Your task to perform on an android device: turn on location history Image 0: 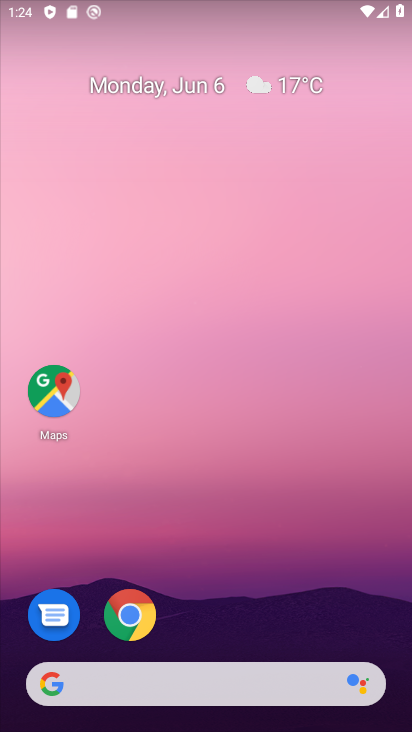
Step 0: drag from (228, 692) to (155, 0)
Your task to perform on an android device: turn on location history Image 1: 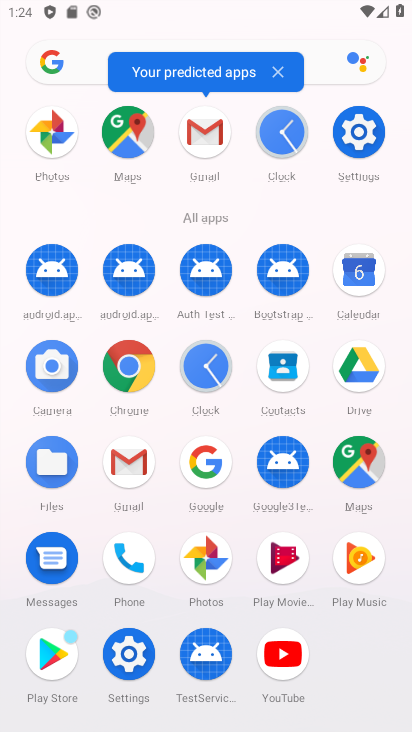
Step 1: click (370, 111)
Your task to perform on an android device: turn on location history Image 2: 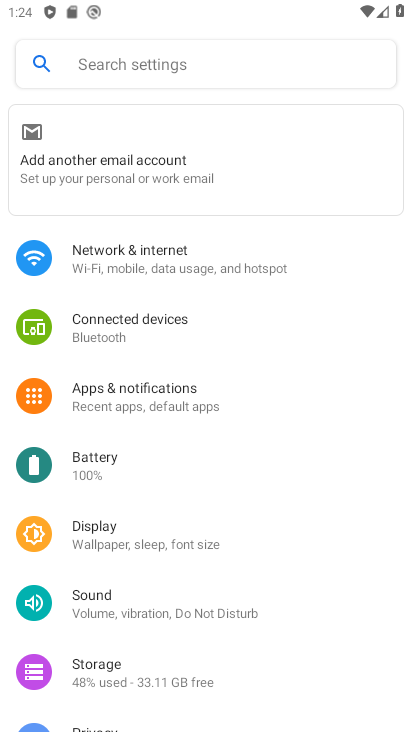
Step 2: drag from (237, 686) to (233, 407)
Your task to perform on an android device: turn on location history Image 3: 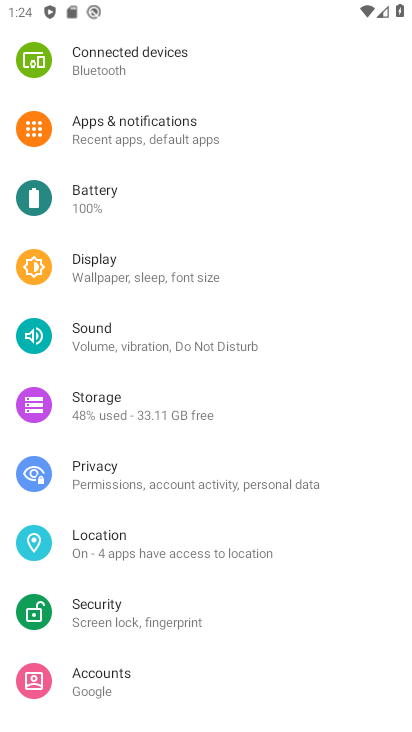
Step 3: click (167, 542)
Your task to perform on an android device: turn on location history Image 4: 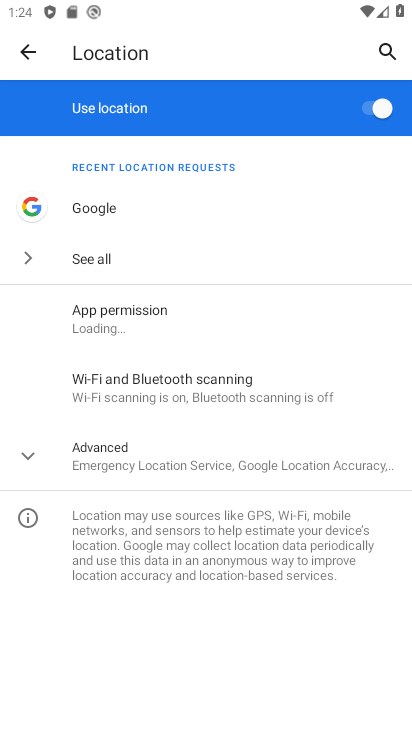
Step 4: click (177, 457)
Your task to perform on an android device: turn on location history Image 5: 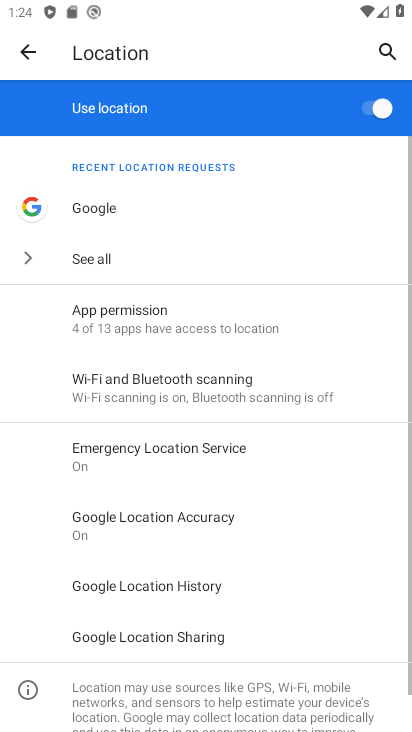
Step 5: drag from (180, 608) to (206, 424)
Your task to perform on an android device: turn on location history Image 6: 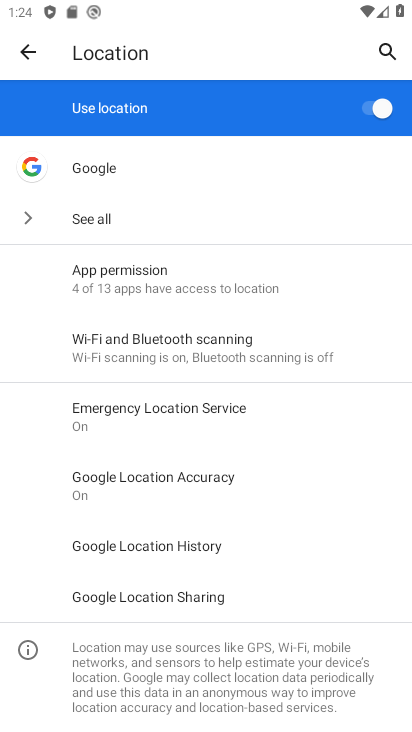
Step 6: click (123, 548)
Your task to perform on an android device: turn on location history Image 7: 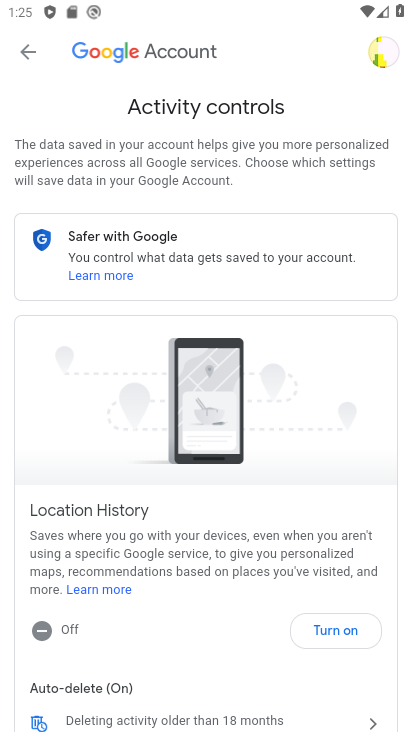
Step 7: click (333, 636)
Your task to perform on an android device: turn on location history Image 8: 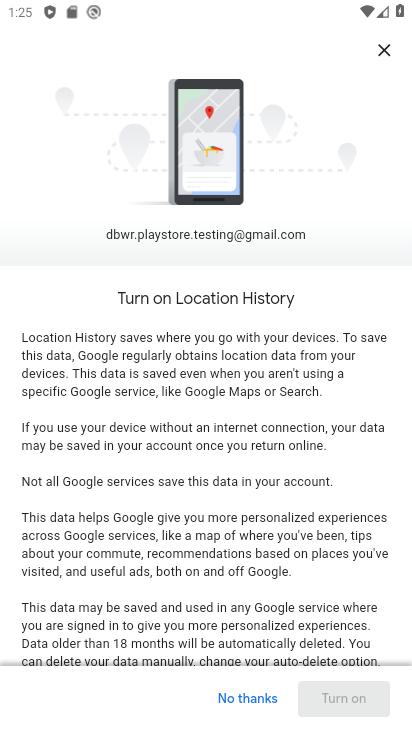
Step 8: drag from (266, 614) to (200, 77)
Your task to perform on an android device: turn on location history Image 9: 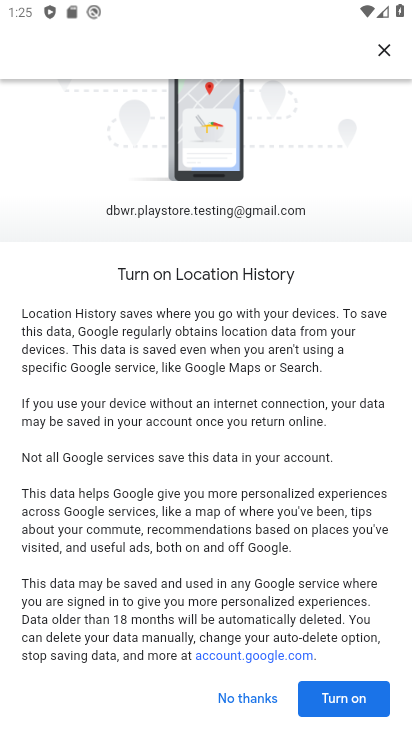
Step 9: click (368, 704)
Your task to perform on an android device: turn on location history Image 10: 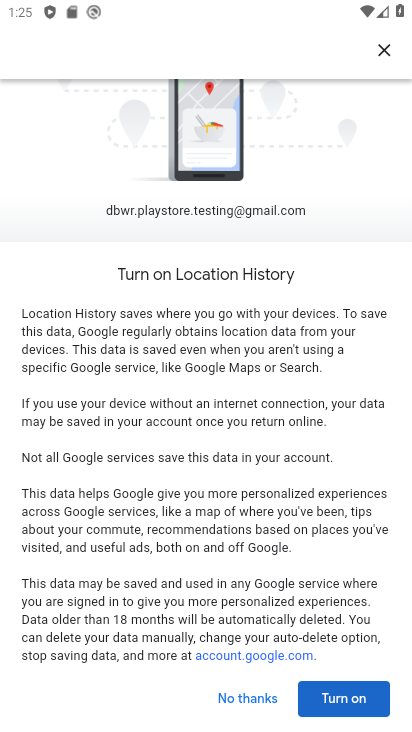
Step 10: click (351, 698)
Your task to perform on an android device: turn on location history Image 11: 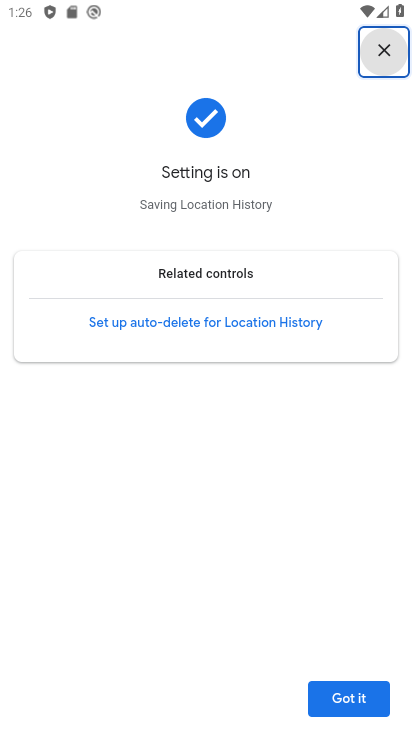
Step 11: click (372, 712)
Your task to perform on an android device: turn on location history Image 12: 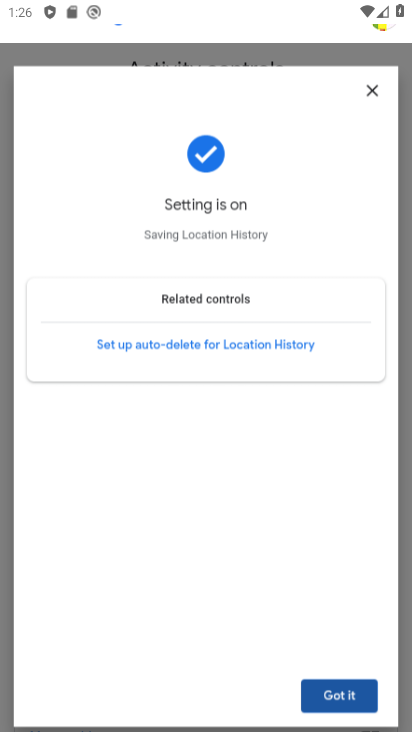
Step 12: task complete